Your task to perform on an android device: turn off wifi Image 0: 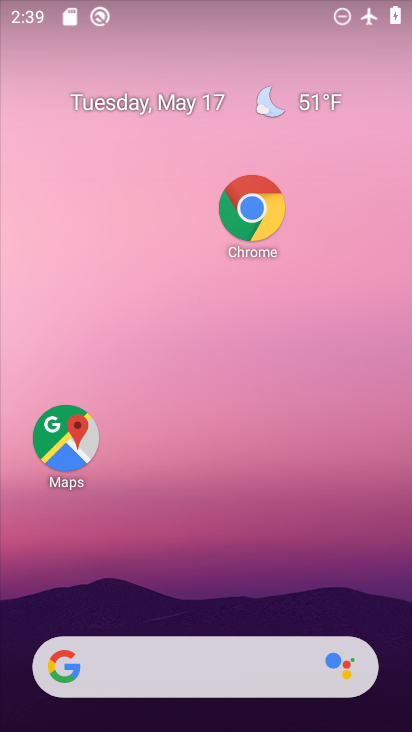
Step 0: drag from (210, 600) to (201, 12)
Your task to perform on an android device: turn off wifi Image 1: 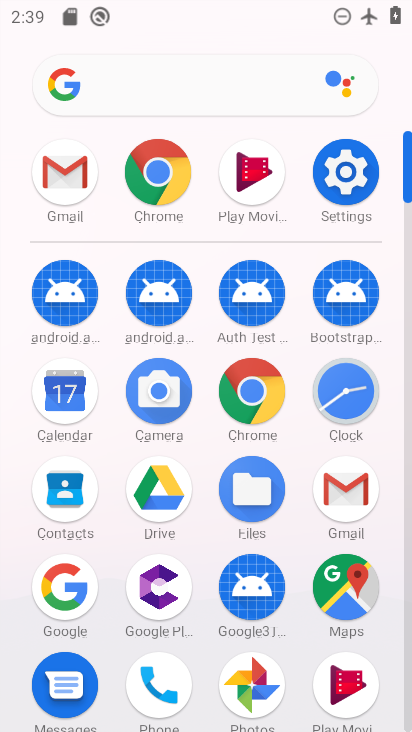
Step 1: click (352, 160)
Your task to perform on an android device: turn off wifi Image 2: 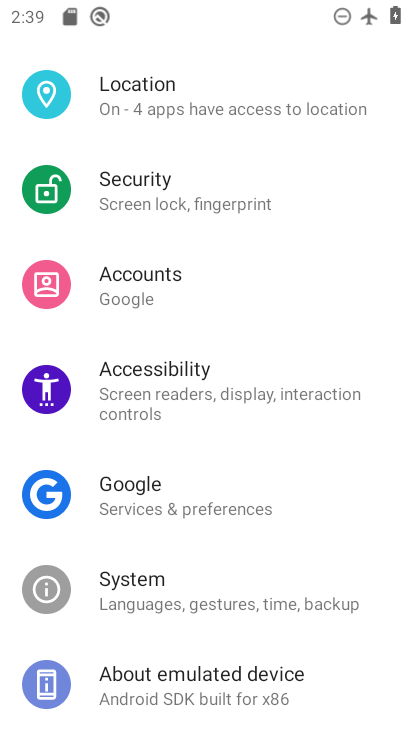
Step 2: drag from (106, 220) to (78, 652)
Your task to perform on an android device: turn off wifi Image 3: 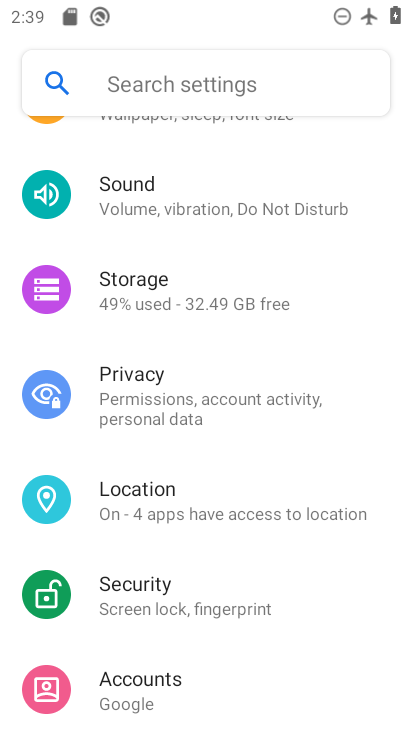
Step 3: drag from (76, 170) to (56, 612)
Your task to perform on an android device: turn off wifi Image 4: 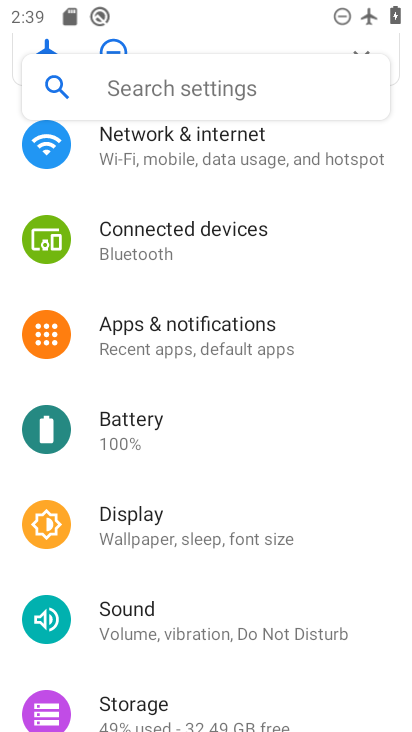
Step 4: drag from (94, 187) to (99, 469)
Your task to perform on an android device: turn off wifi Image 5: 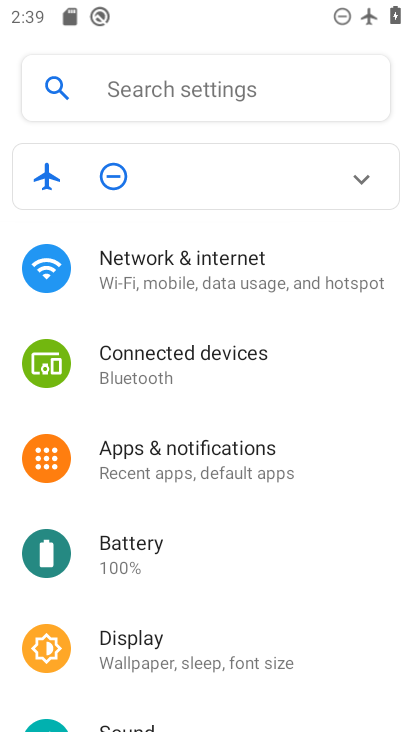
Step 5: click (127, 285)
Your task to perform on an android device: turn off wifi Image 6: 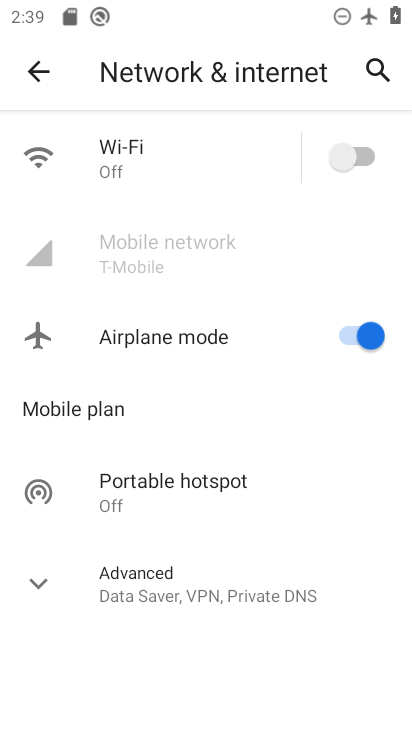
Step 6: click (220, 163)
Your task to perform on an android device: turn off wifi Image 7: 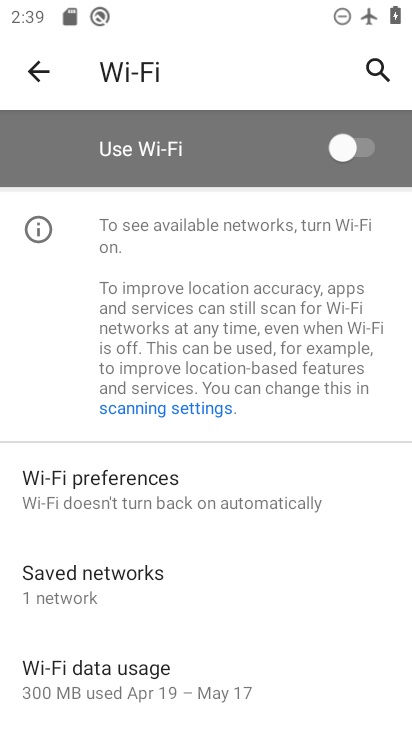
Step 7: task complete